Your task to perform on an android device: Open Google Chrome and open the bookmarks view Image 0: 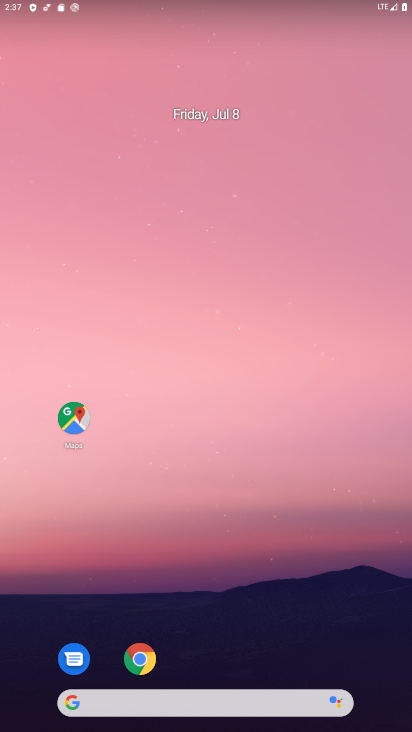
Step 0: press home button
Your task to perform on an android device: Open Google Chrome and open the bookmarks view Image 1: 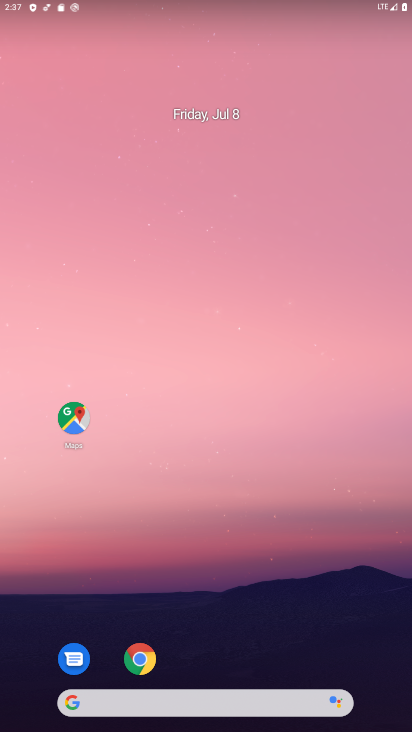
Step 1: click (138, 656)
Your task to perform on an android device: Open Google Chrome and open the bookmarks view Image 2: 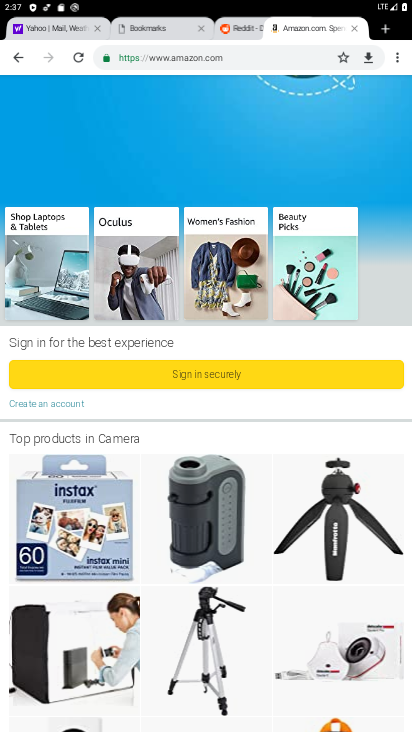
Step 2: press home button
Your task to perform on an android device: Open Google Chrome and open the bookmarks view Image 3: 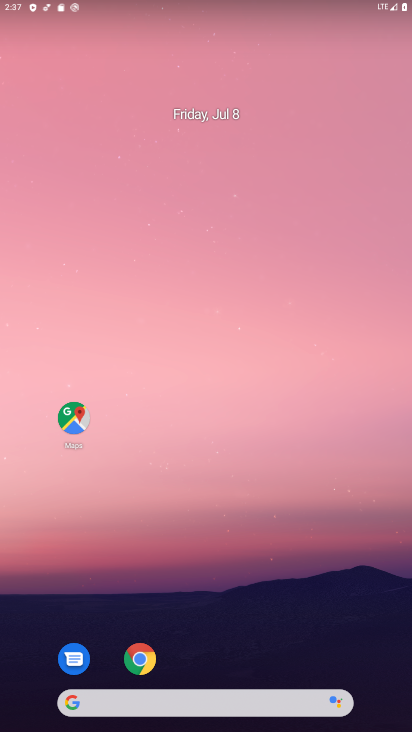
Step 3: click (137, 655)
Your task to perform on an android device: Open Google Chrome and open the bookmarks view Image 4: 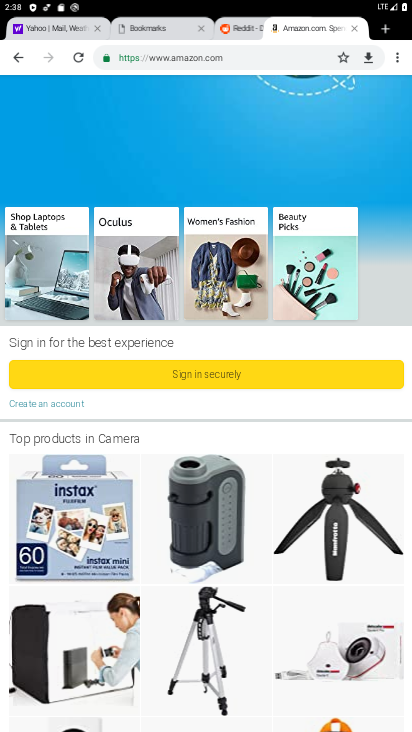
Step 4: click (401, 58)
Your task to perform on an android device: Open Google Chrome and open the bookmarks view Image 5: 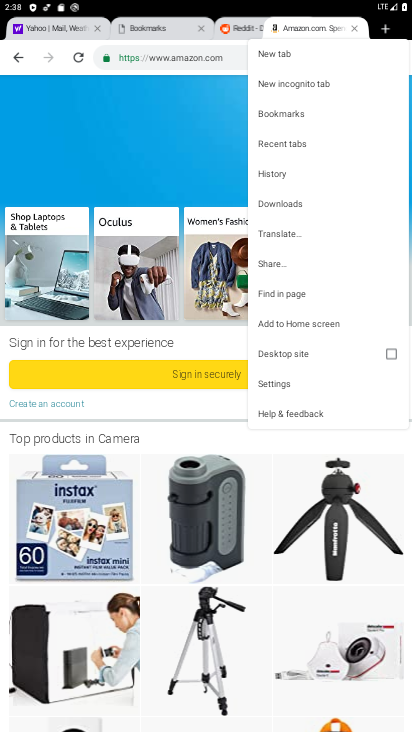
Step 5: click (308, 111)
Your task to perform on an android device: Open Google Chrome and open the bookmarks view Image 6: 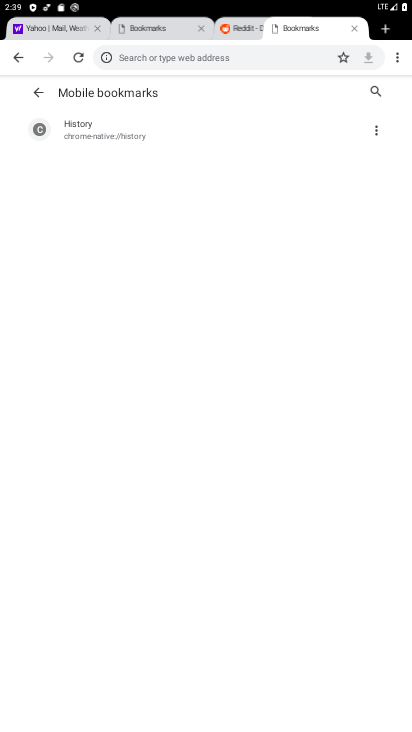
Step 6: task complete